Your task to perform on an android device: set an alarm Image 0: 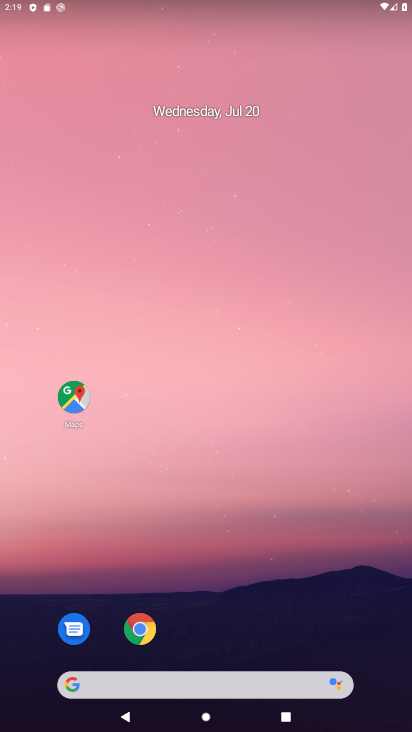
Step 0: drag from (232, 651) to (266, 97)
Your task to perform on an android device: set an alarm Image 1: 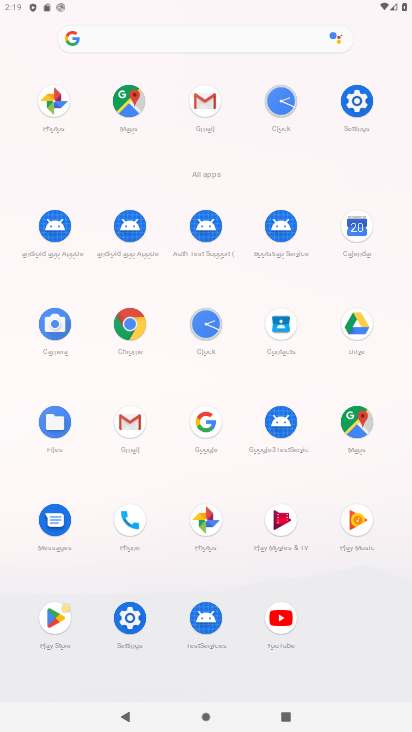
Step 1: click (201, 322)
Your task to perform on an android device: set an alarm Image 2: 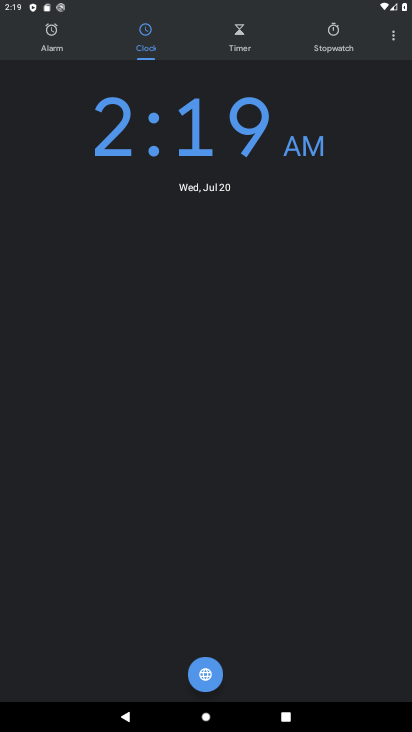
Step 2: click (48, 31)
Your task to perform on an android device: set an alarm Image 3: 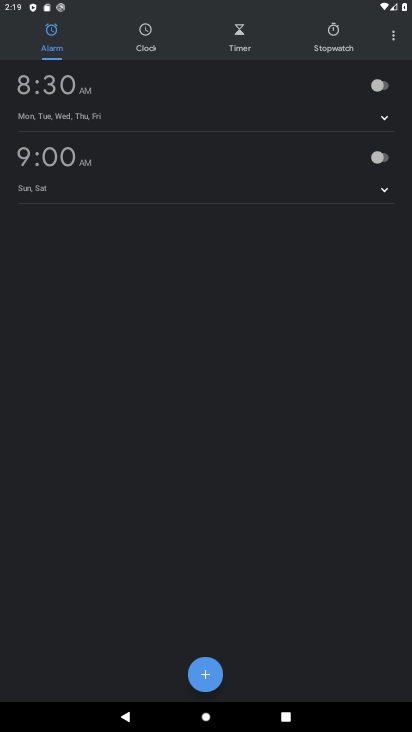
Step 3: click (397, 94)
Your task to perform on an android device: set an alarm Image 4: 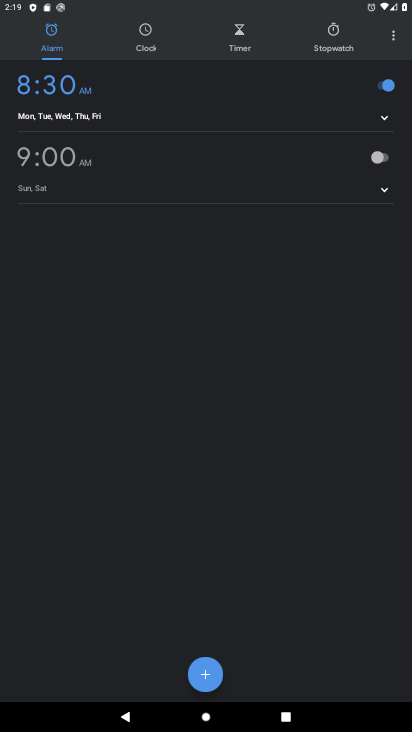
Step 4: task complete